Your task to perform on an android device: see creations saved in the google photos Image 0: 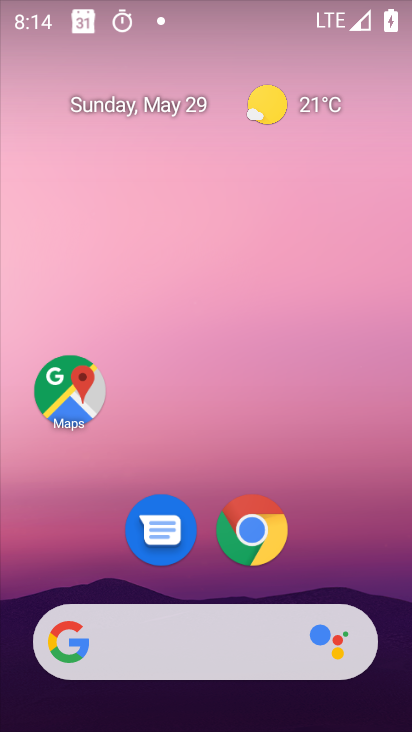
Step 0: press home button
Your task to perform on an android device: see creations saved in the google photos Image 1: 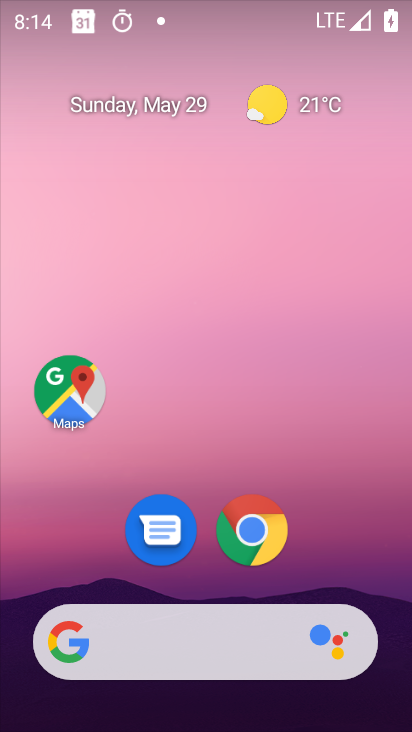
Step 1: drag from (224, 679) to (228, 165)
Your task to perform on an android device: see creations saved in the google photos Image 2: 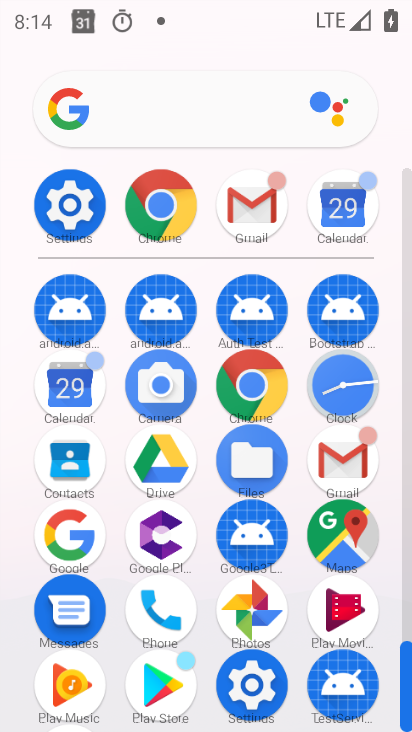
Step 2: click (232, 606)
Your task to perform on an android device: see creations saved in the google photos Image 3: 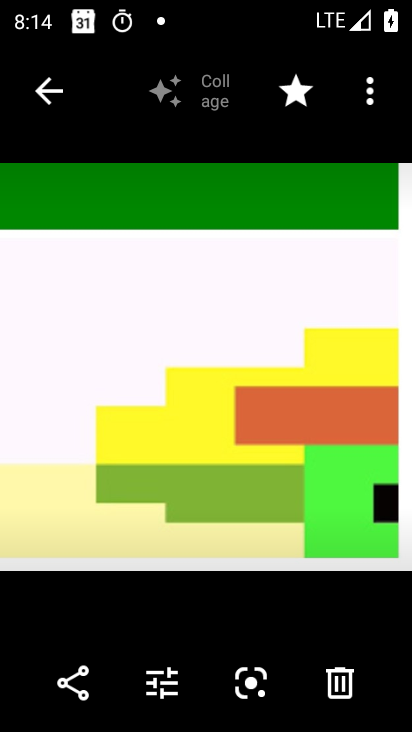
Step 3: click (34, 78)
Your task to perform on an android device: see creations saved in the google photos Image 4: 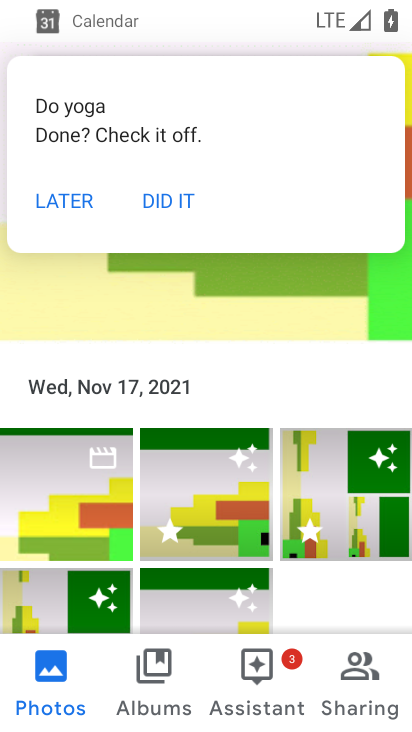
Step 4: click (67, 193)
Your task to perform on an android device: see creations saved in the google photos Image 5: 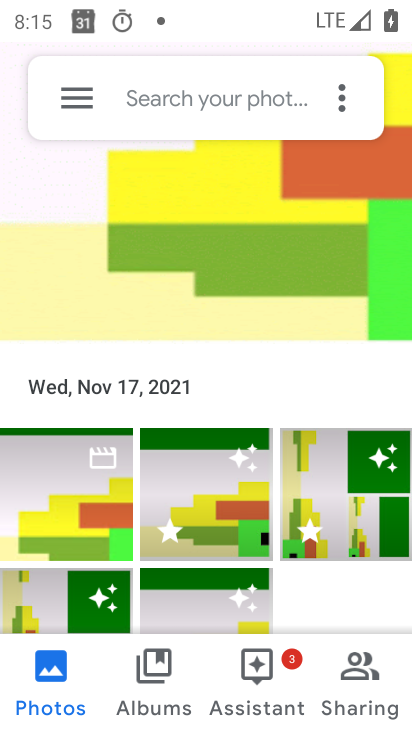
Step 5: click (200, 488)
Your task to perform on an android device: see creations saved in the google photos Image 6: 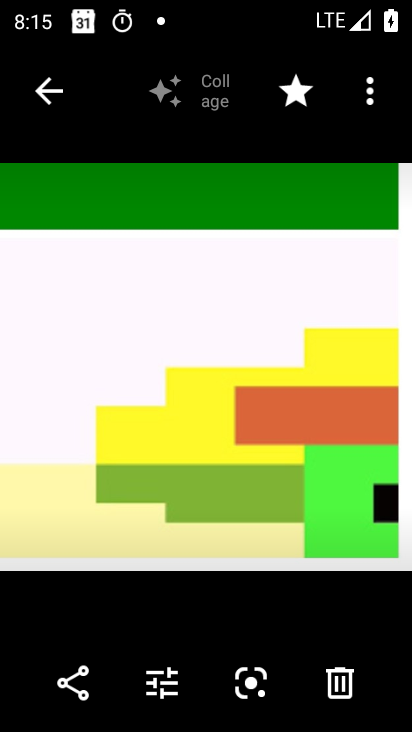
Step 6: click (383, 104)
Your task to perform on an android device: see creations saved in the google photos Image 7: 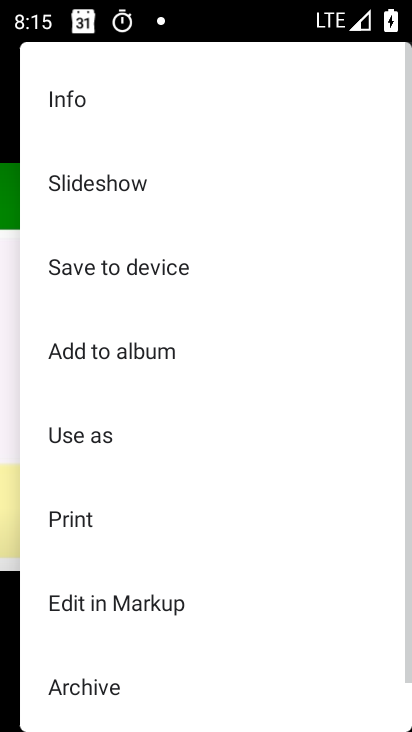
Step 7: click (95, 277)
Your task to perform on an android device: see creations saved in the google photos Image 8: 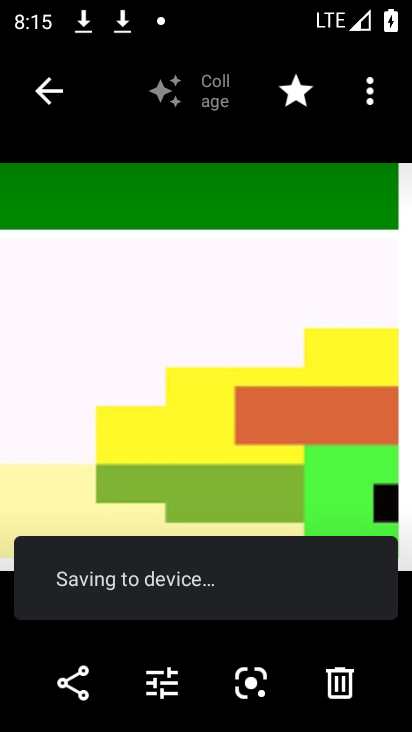
Step 8: task complete